Your task to perform on an android device: Open Google Maps Image 0: 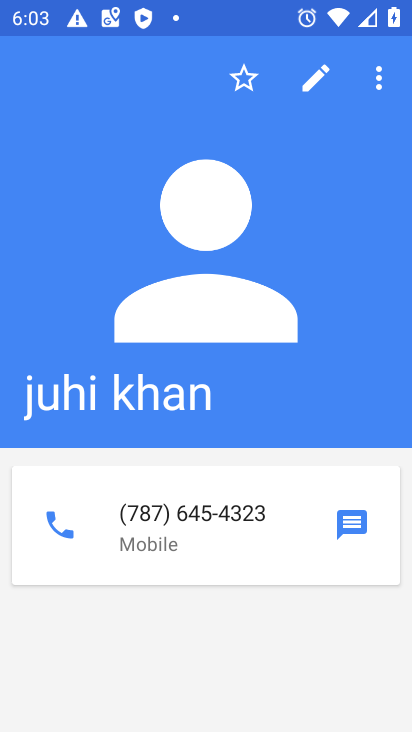
Step 0: press home button
Your task to perform on an android device: Open Google Maps Image 1: 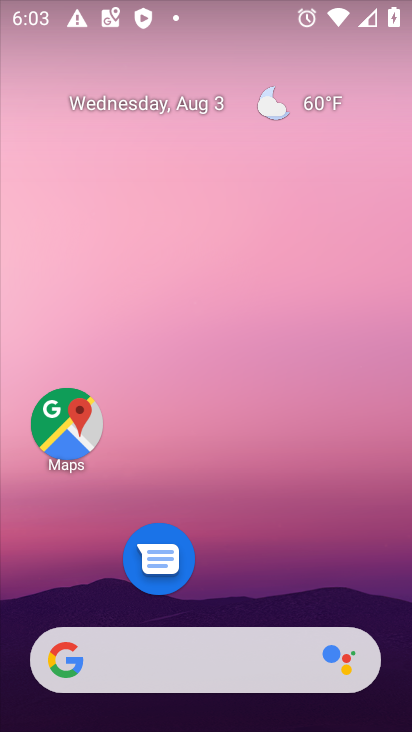
Step 1: drag from (193, 640) to (198, 186)
Your task to perform on an android device: Open Google Maps Image 2: 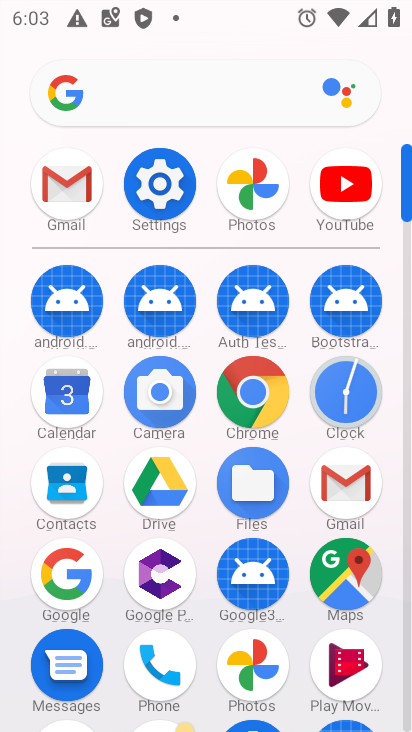
Step 2: click (353, 580)
Your task to perform on an android device: Open Google Maps Image 3: 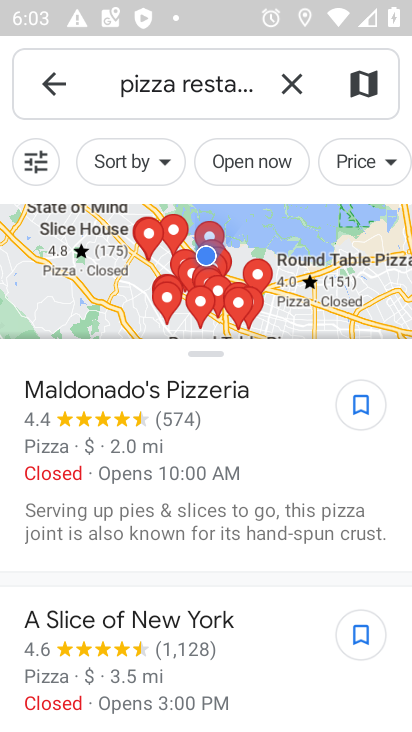
Step 3: click (292, 86)
Your task to perform on an android device: Open Google Maps Image 4: 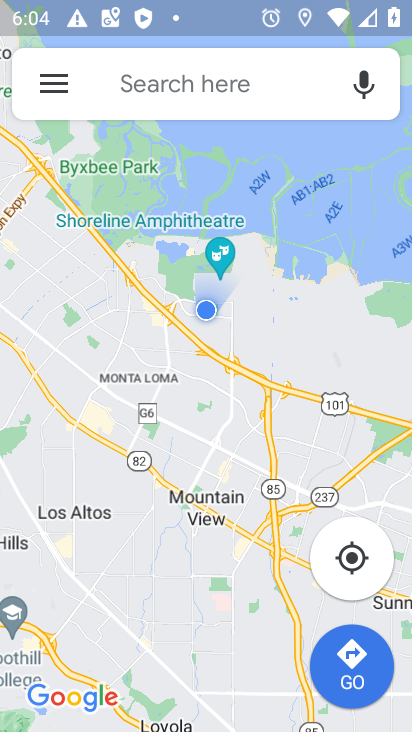
Step 4: task complete